Your task to perform on an android device: snooze an email in the gmail app Image 0: 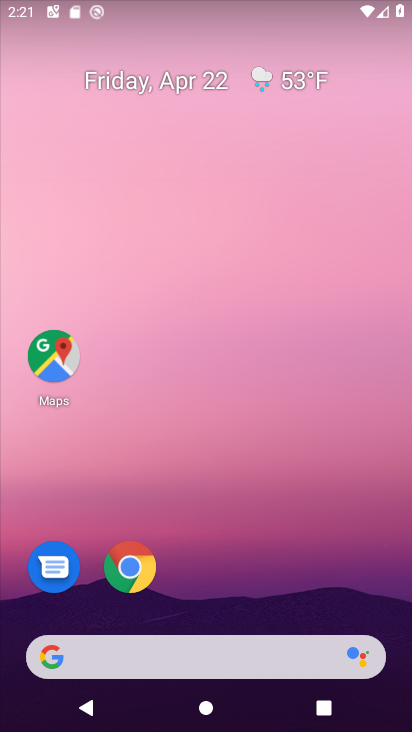
Step 0: drag from (323, 532) to (286, 103)
Your task to perform on an android device: snooze an email in the gmail app Image 1: 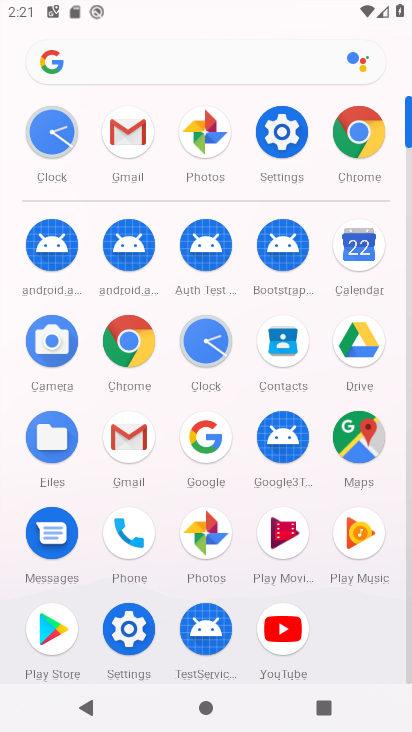
Step 1: click (129, 128)
Your task to perform on an android device: snooze an email in the gmail app Image 2: 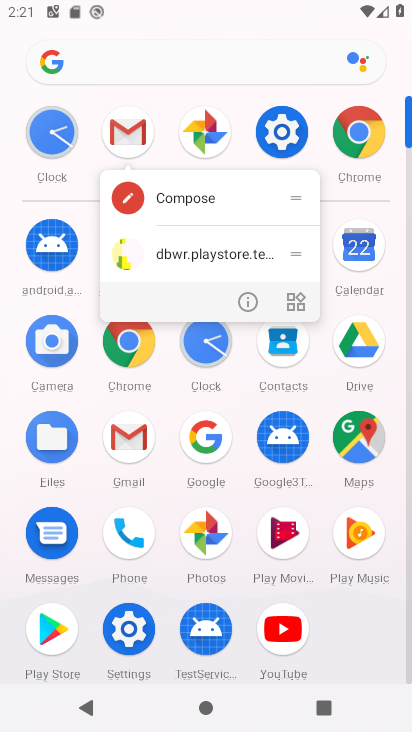
Step 2: click (129, 120)
Your task to perform on an android device: snooze an email in the gmail app Image 3: 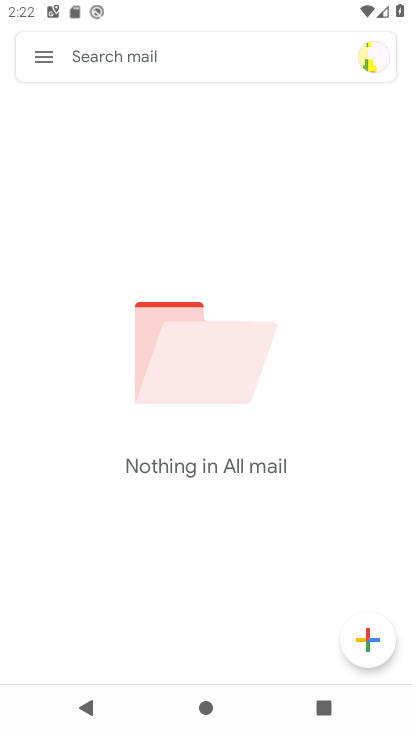
Step 3: task complete